Your task to perform on an android device: Go to eBay Image 0: 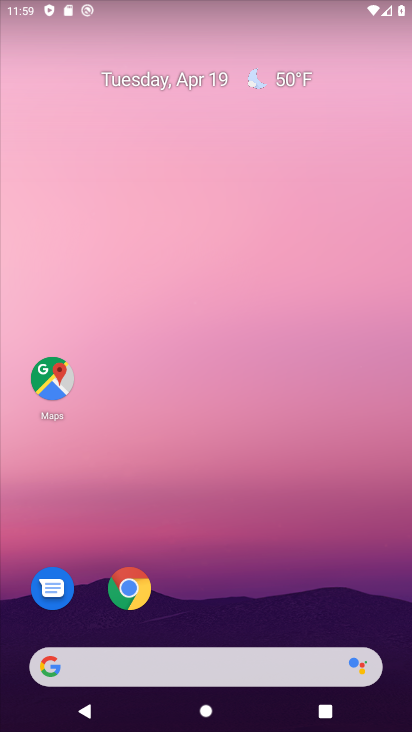
Step 0: drag from (199, 617) to (263, 138)
Your task to perform on an android device: Go to eBay Image 1: 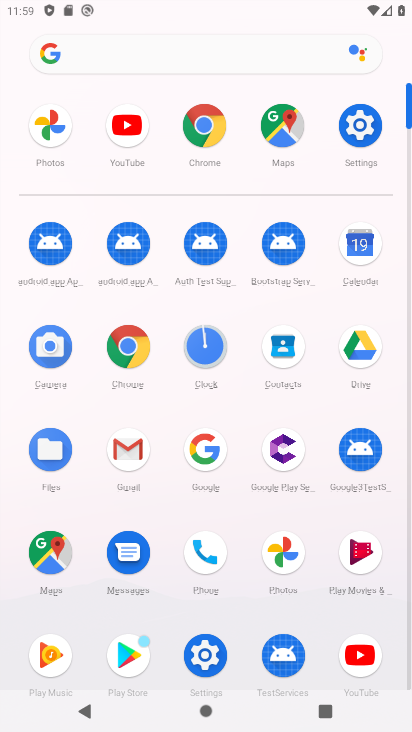
Step 1: click (204, 125)
Your task to perform on an android device: Go to eBay Image 2: 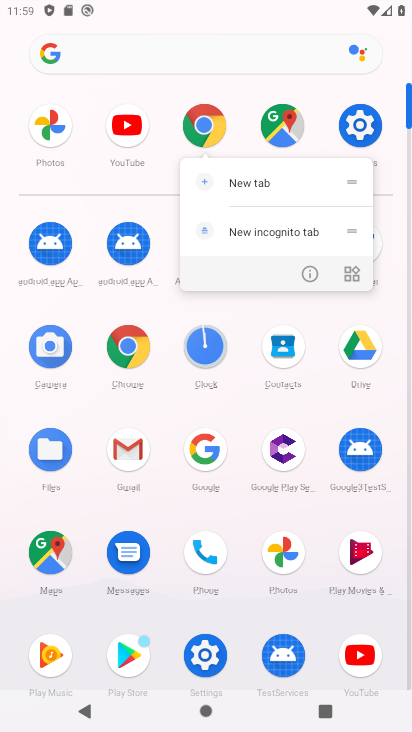
Step 2: click (199, 124)
Your task to perform on an android device: Go to eBay Image 3: 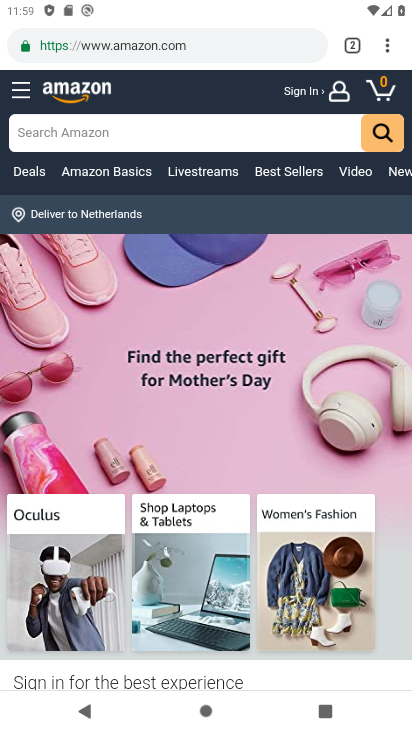
Step 3: click (352, 44)
Your task to perform on an android device: Go to eBay Image 4: 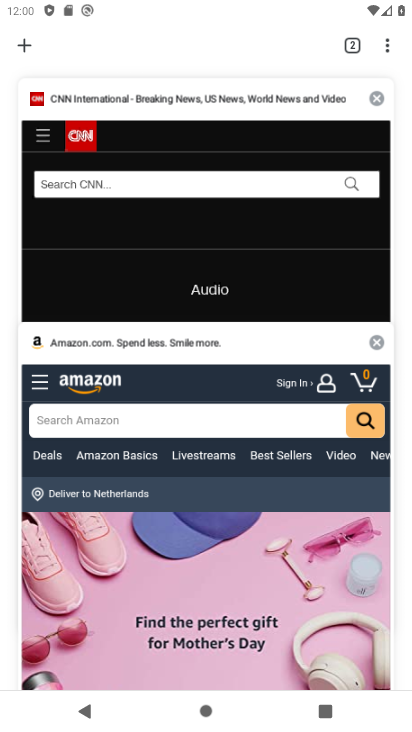
Step 4: click (377, 92)
Your task to perform on an android device: Go to eBay Image 5: 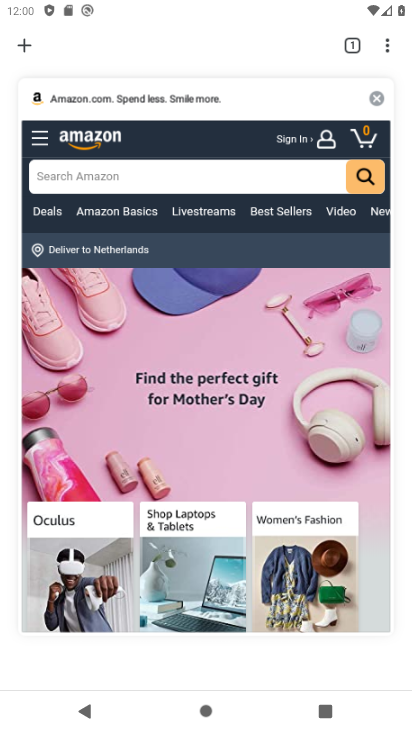
Step 5: click (378, 90)
Your task to perform on an android device: Go to eBay Image 6: 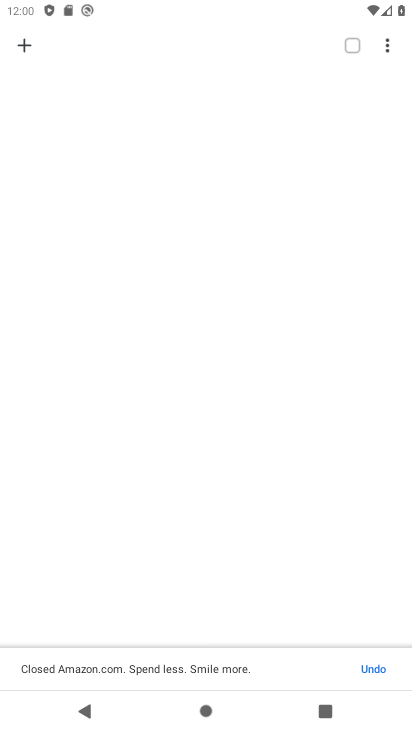
Step 6: click (23, 46)
Your task to perform on an android device: Go to eBay Image 7: 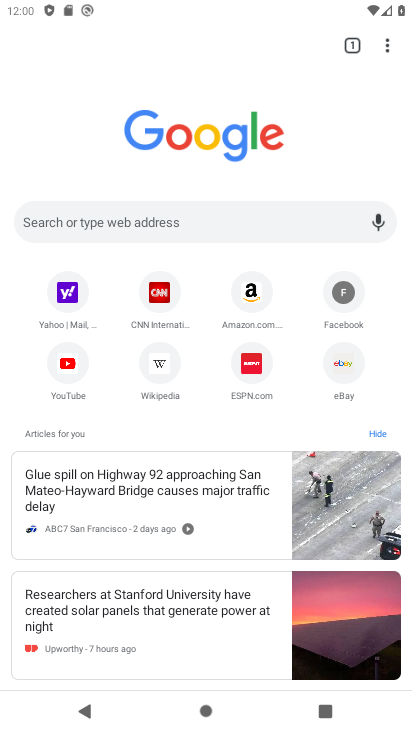
Step 7: click (346, 367)
Your task to perform on an android device: Go to eBay Image 8: 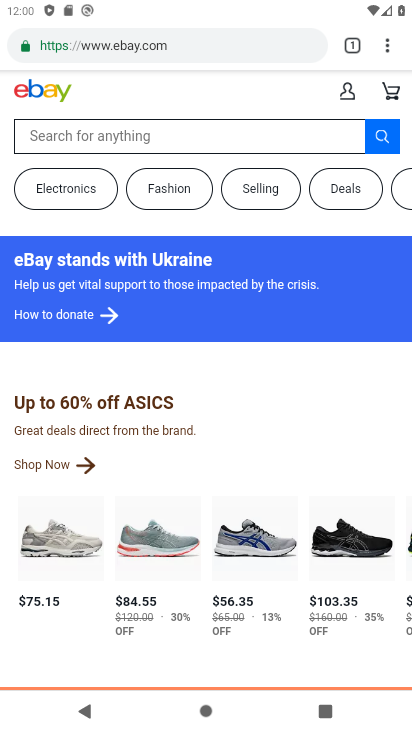
Step 8: task complete